Your task to perform on an android device: toggle data saver in the chrome app Image 0: 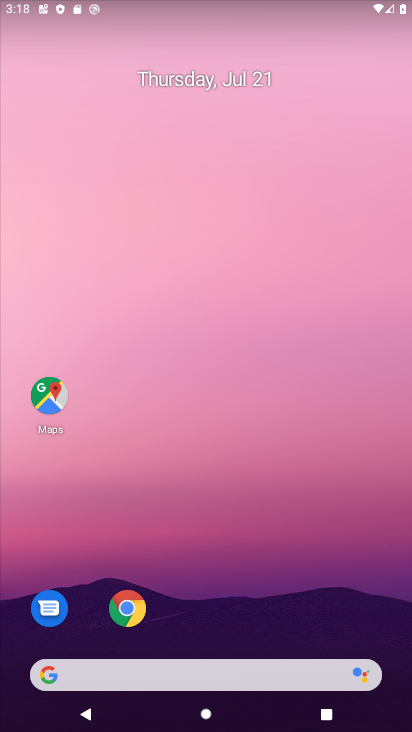
Step 0: drag from (302, 686) to (356, 0)
Your task to perform on an android device: toggle data saver in the chrome app Image 1: 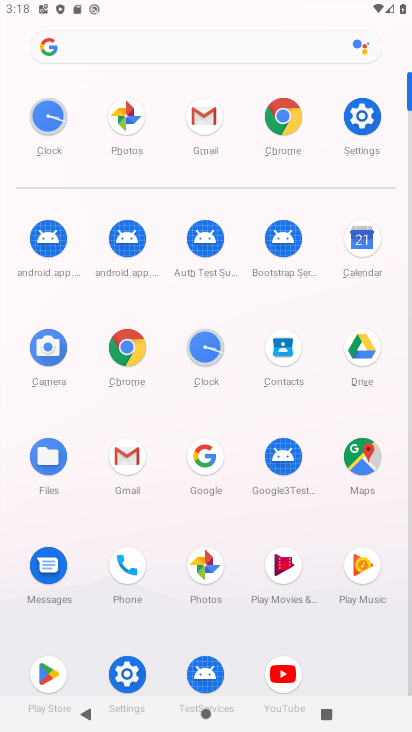
Step 1: click (135, 352)
Your task to perform on an android device: toggle data saver in the chrome app Image 2: 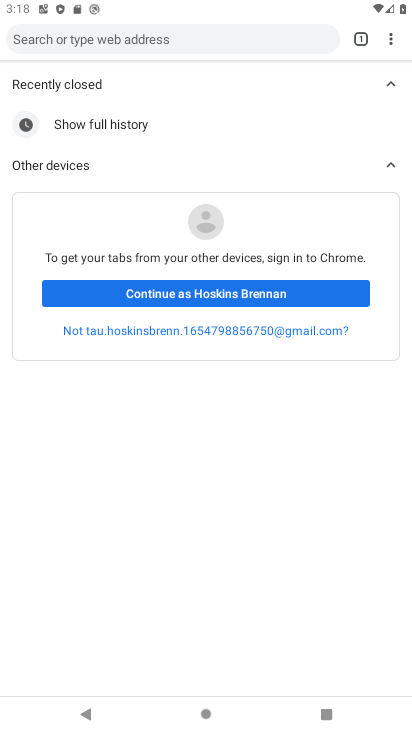
Step 2: drag from (392, 28) to (241, 331)
Your task to perform on an android device: toggle data saver in the chrome app Image 3: 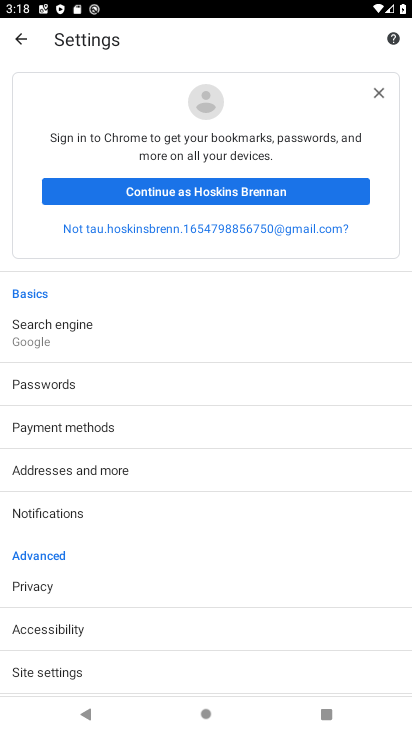
Step 3: drag from (115, 694) to (209, 275)
Your task to perform on an android device: toggle data saver in the chrome app Image 4: 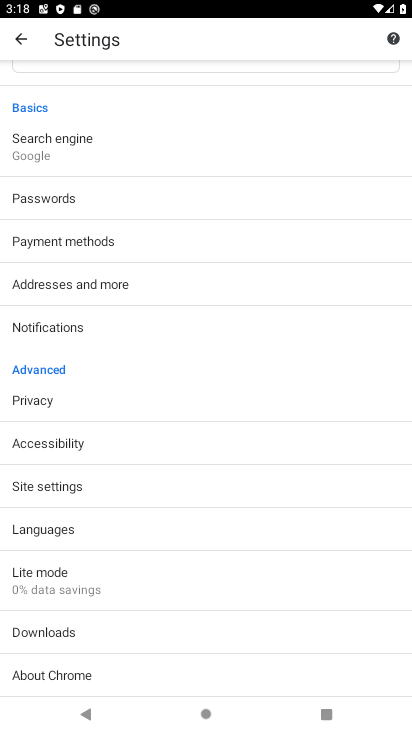
Step 4: click (55, 586)
Your task to perform on an android device: toggle data saver in the chrome app Image 5: 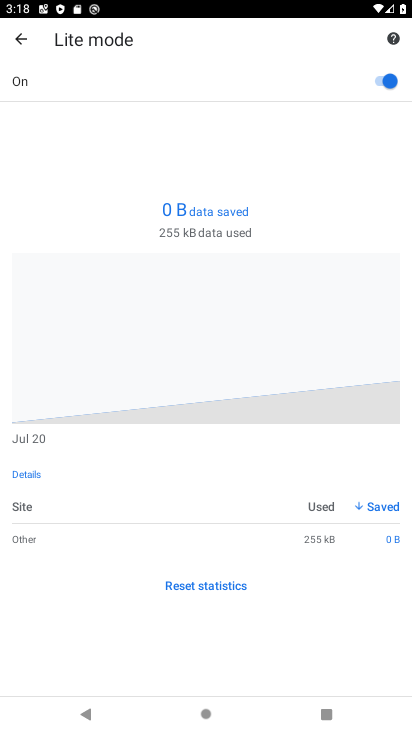
Step 5: click (382, 78)
Your task to perform on an android device: toggle data saver in the chrome app Image 6: 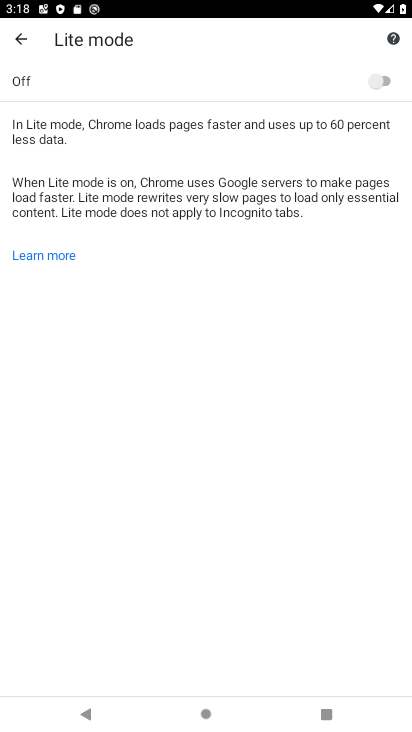
Step 6: task complete